Your task to perform on an android device: toggle javascript in the chrome app Image 0: 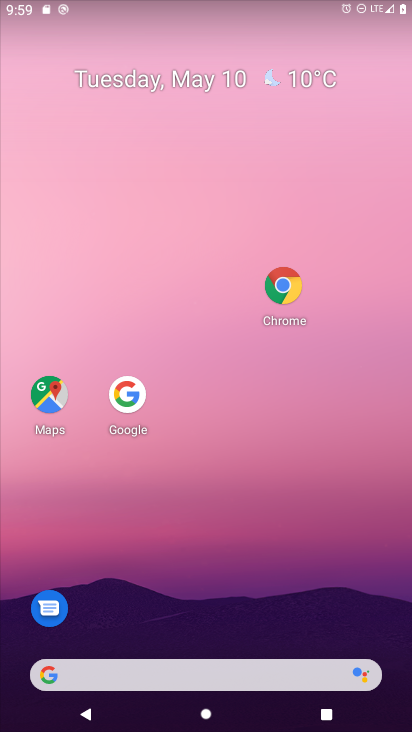
Step 0: drag from (163, 669) to (288, 192)
Your task to perform on an android device: toggle javascript in the chrome app Image 1: 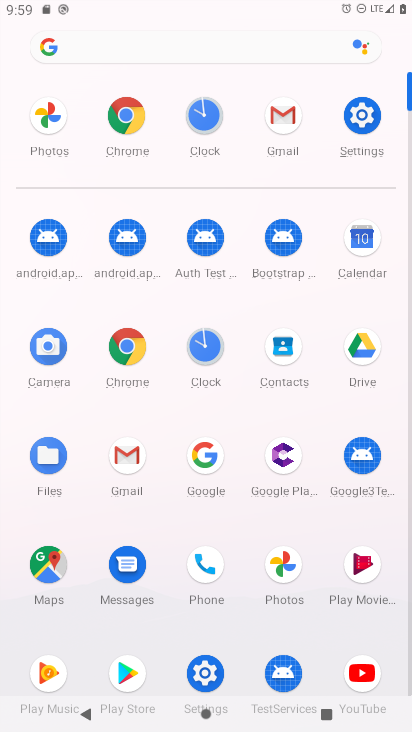
Step 1: click (121, 125)
Your task to perform on an android device: toggle javascript in the chrome app Image 2: 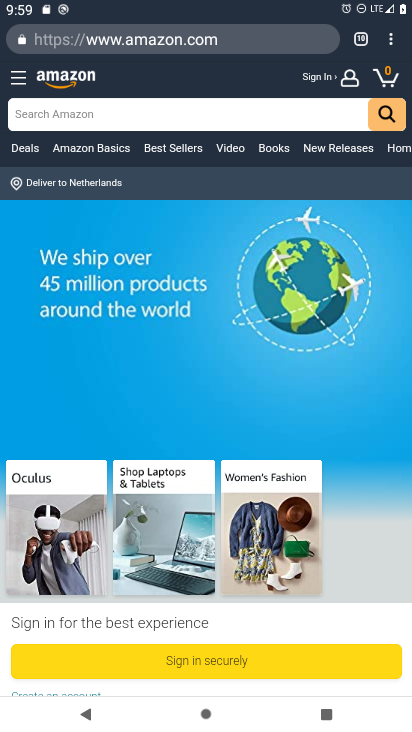
Step 2: drag from (390, 43) to (280, 471)
Your task to perform on an android device: toggle javascript in the chrome app Image 3: 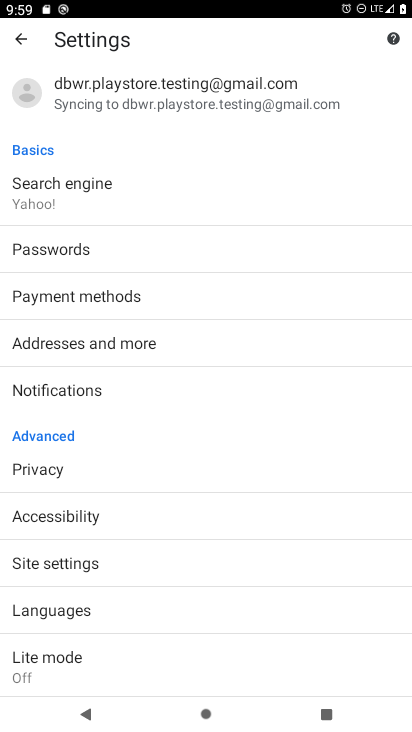
Step 3: click (70, 561)
Your task to perform on an android device: toggle javascript in the chrome app Image 4: 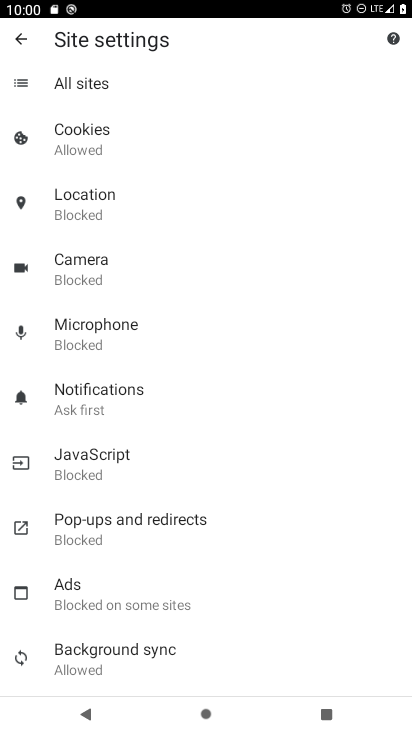
Step 4: click (105, 462)
Your task to perform on an android device: toggle javascript in the chrome app Image 5: 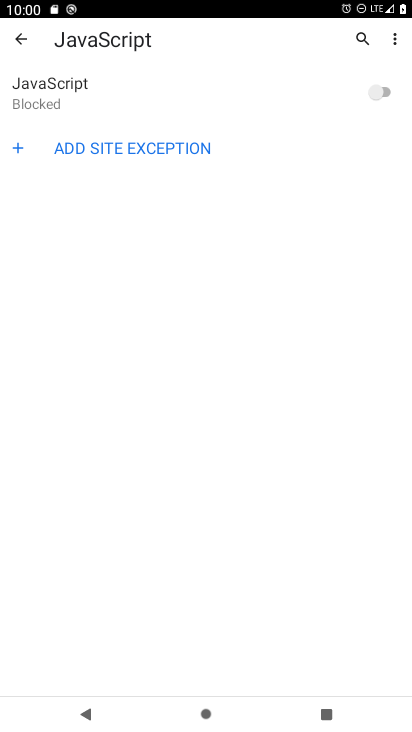
Step 5: click (383, 90)
Your task to perform on an android device: toggle javascript in the chrome app Image 6: 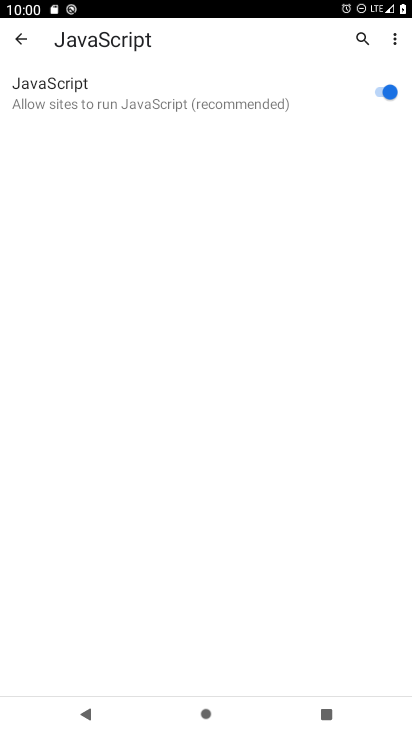
Step 6: task complete